Your task to perform on an android device: Open sound settings Image 0: 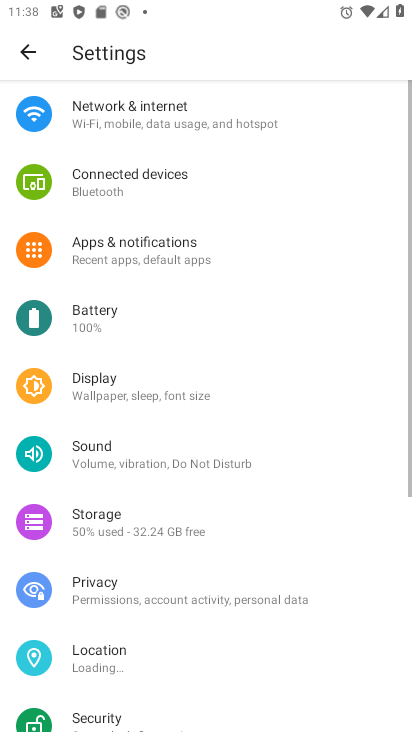
Step 0: press home button
Your task to perform on an android device: Open sound settings Image 1: 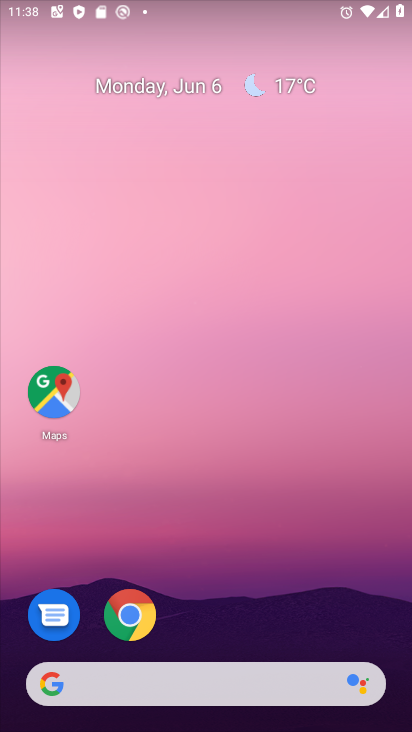
Step 1: drag from (208, 636) to (265, 128)
Your task to perform on an android device: Open sound settings Image 2: 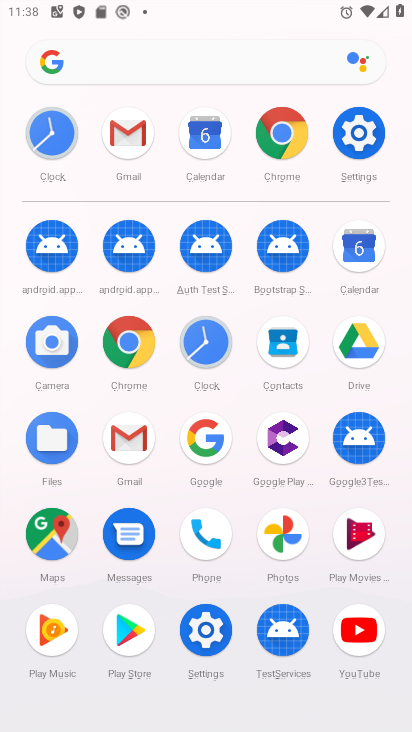
Step 2: click (345, 129)
Your task to perform on an android device: Open sound settings Image 3: 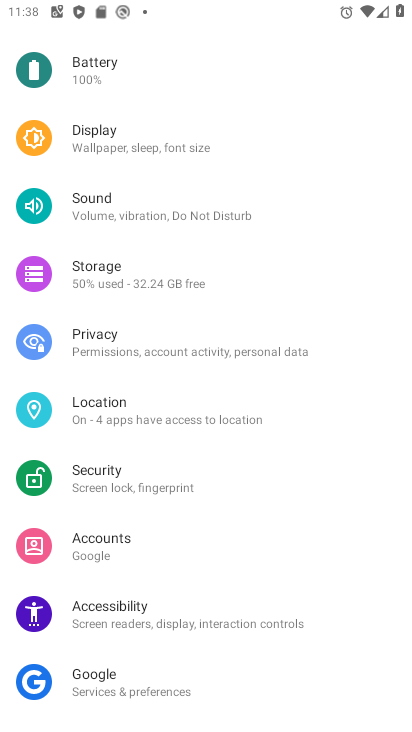
Step 3: click (134, 199)
Your task to perform on an android device: Open sound settings Image 4: 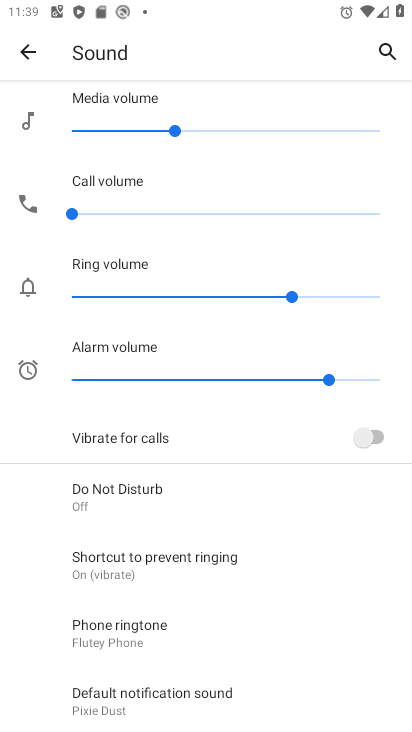
Step 4: task complete